Your task to perform on an android device: delete a single message in the gmail app Image 0: 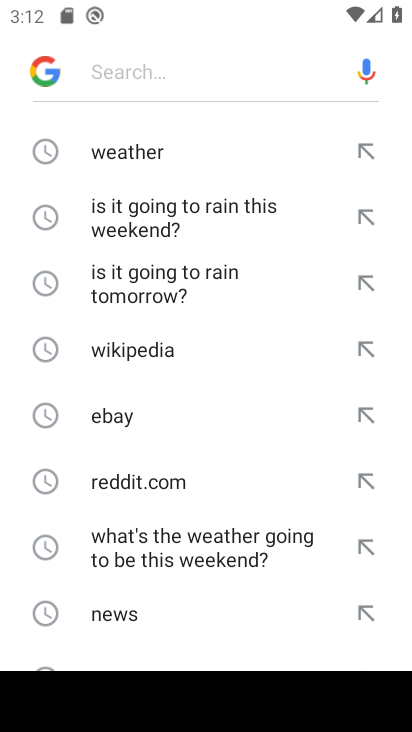
Step 0: press home button
Your task to perform on an android device: delete a single message in the gmail app Image 1: 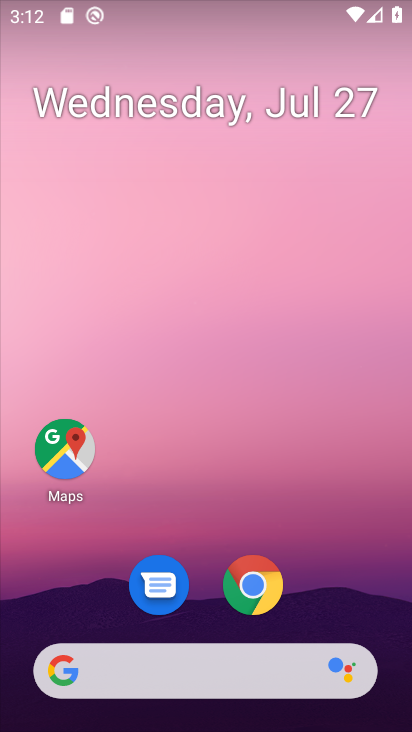
Step 1: drag from (341, 575) to (269, 67)
Your task to perform on an android device: delete a single message in the gmail app Image 2: 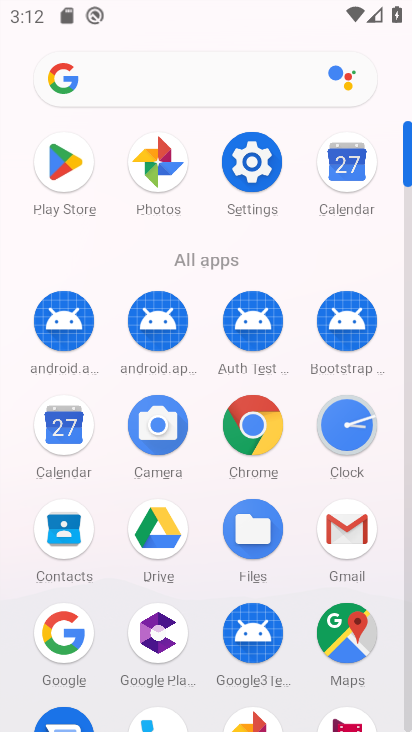
Step 2: click (343, 518)
Your task to perform on an android device: delete a single message in the gmail app Image 3: 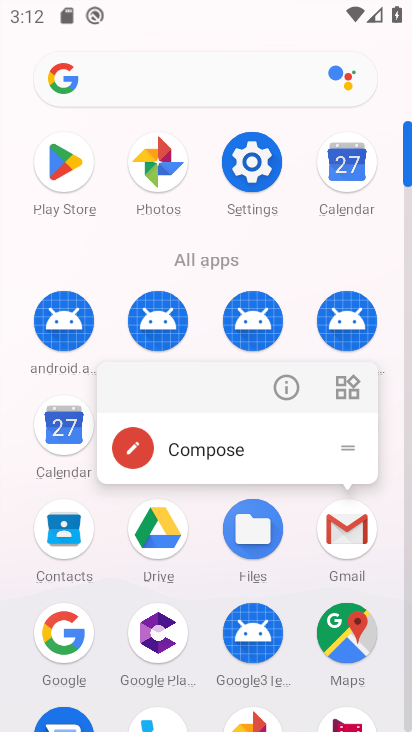
Step 3: click (341, 522)
Your task to perform on an android device: delete a single message in the gmail app Image 4: 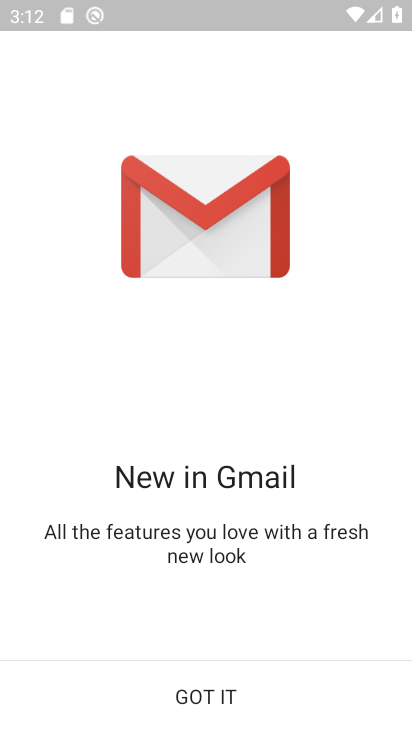
Step 4: click (227, 691)
Your task to perform on an android device: delete a single message in the gmail app Image 5: 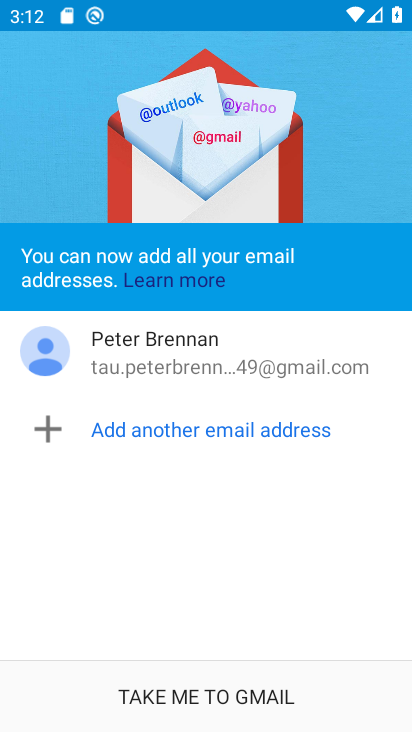
Step 5: click (227, 691)
Your task to perform on an android device: delete a single message in the gmail app Image 6: 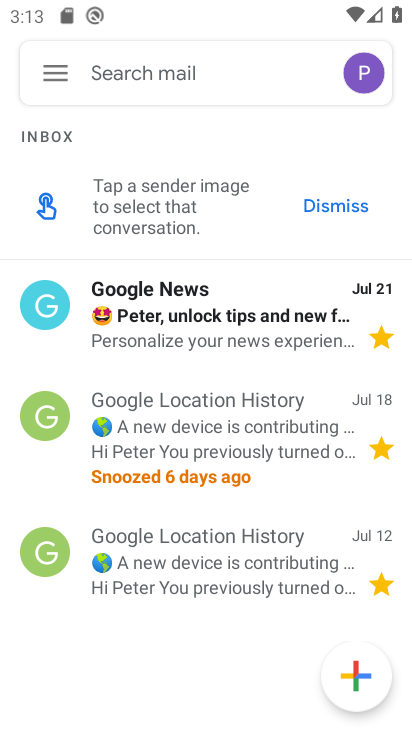
Step 6: click (53, 70)
Your task to perform on an android device: delete a single message in the gmail app Image 7: 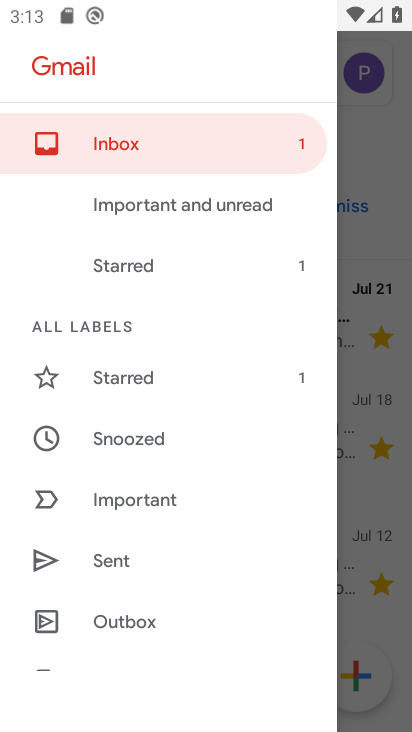
Step 7: click (169, 153)
Your task to perform on an android device: delete a single message in the gmail app Image 8: 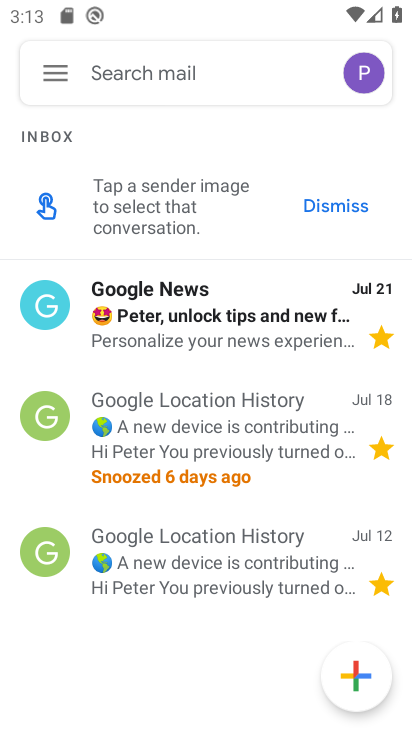
Step 8: click (260, 566)
Your task to perform on an android device: delete a single message in the gmail app Image 9: 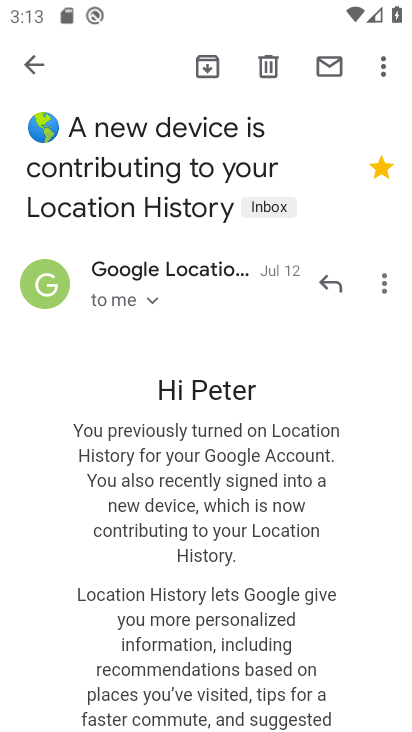
Step 9: click (270, 63)
Your task to perform on an android device: delete a single message in the gmail app Image 10: 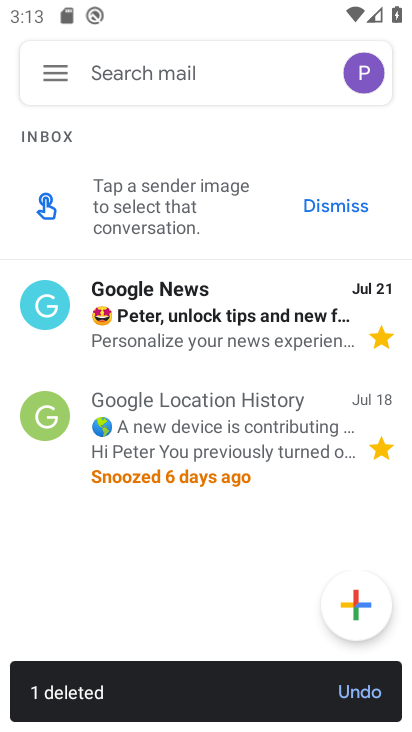
Step 10: task complete